Your task to perform on an android device: Open Google Maps and go to "Timeline" Image 0: 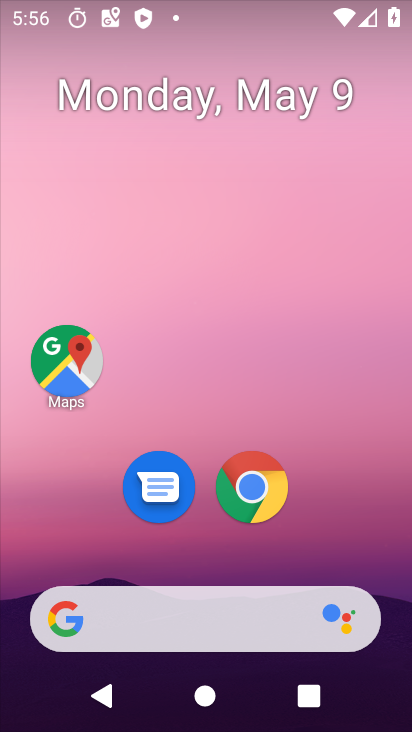
Step 0: click (67, 383)
Your task to perform on an android device: Open Google Maps and go to "Timeline" Image 1: 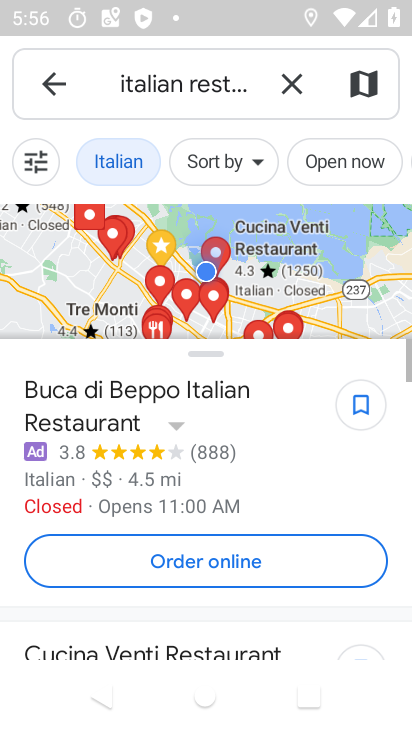
Step 1: click (290, 83)
Your task to perform on an android device: Open Google Maps and go to "Timeline" Image 2: 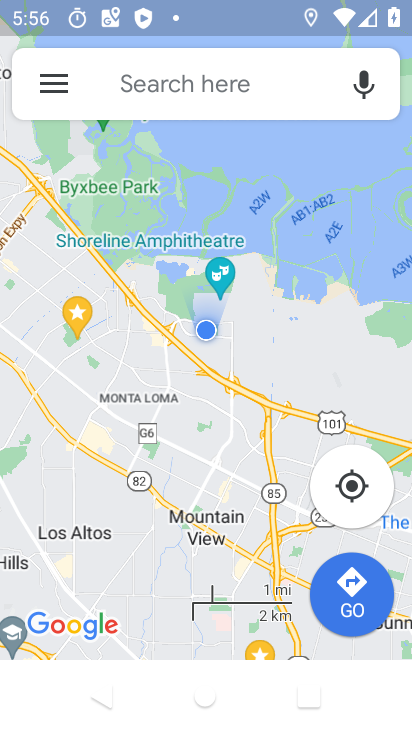
Step 2: click (60, 83)
Your task to perform on an android device: Open Google Maps and go to "Timeline" Image 3: 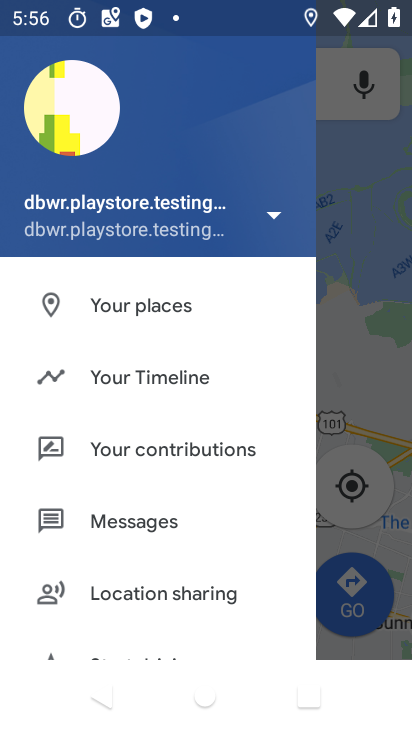
Step 3: click (113, 379)
Your task to perform on an android device: Open Google Maps and go to "Timeline" Image 4: 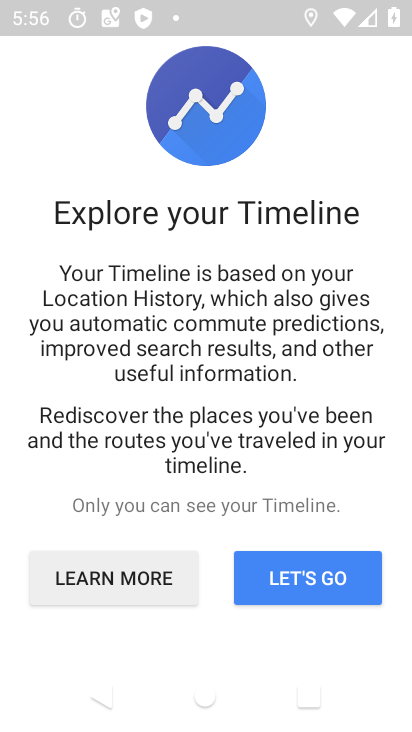
Step 4: drag from (228, 502) to (272, 254)
Your task to perform on an android device: Open Google Maps and go to "Timeline" Image 5: 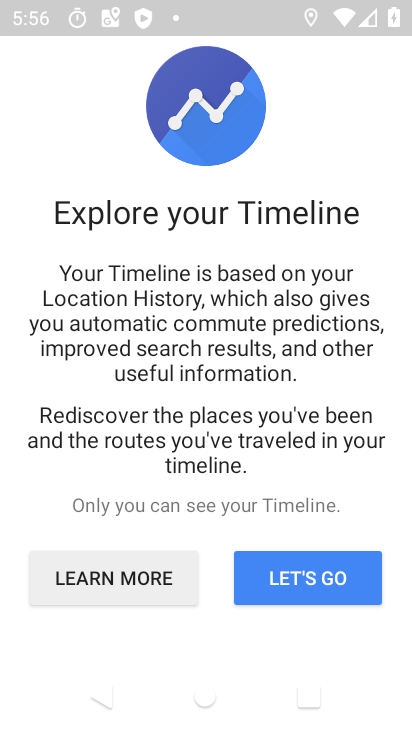
Step 5: click (308, 593)
Your task to perform on an android device: Open Google Maps and go to "Timeline" Image 6: 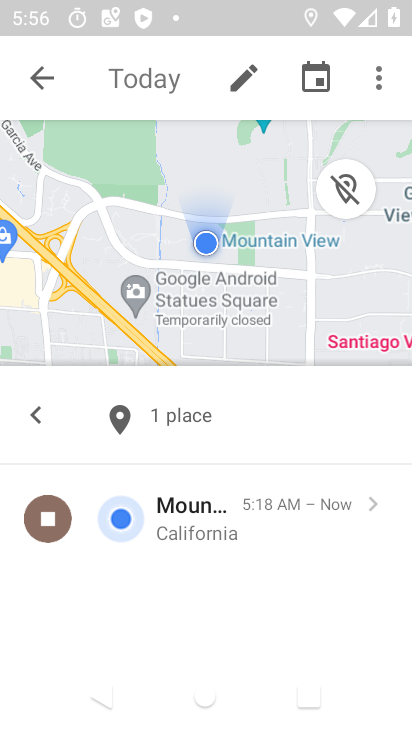
Step 6: task complete